Your task to perform on an android device: change the clock display to digital Image 0: 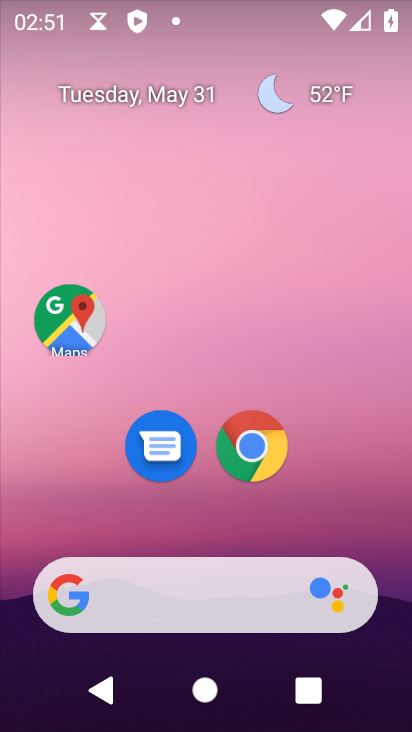
Step 0: drag from (318, 501) to (233, 123)
Your task to perform on an android device: change the clock display to digital Image 1: 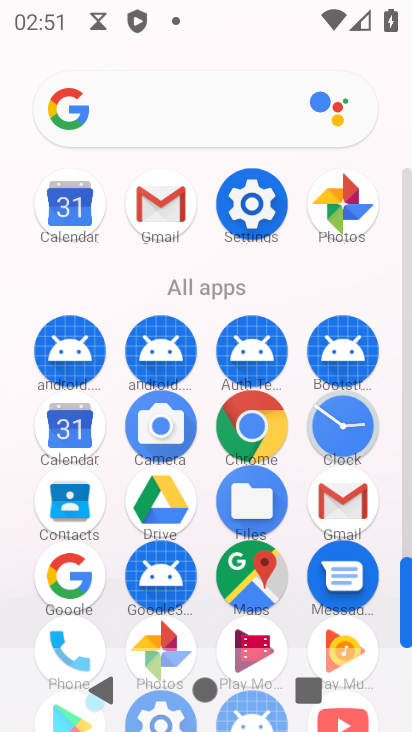
Step 1: click (343, 426)
Your task to perform on an android device: change the clock display to digital Image 2: 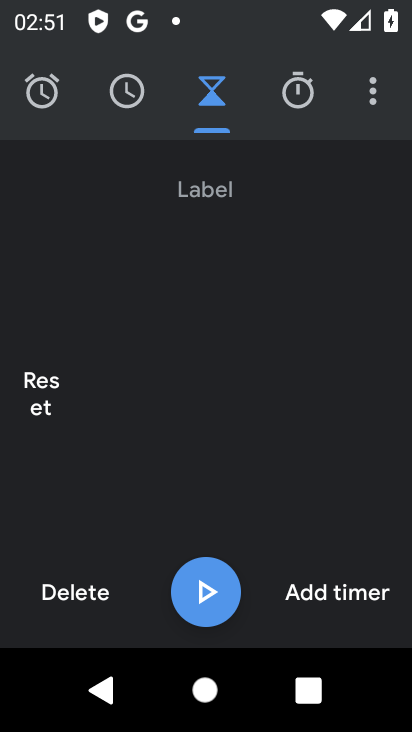
Step 2: click (373, 95)
Your task to perform on an android device: change the clock display to digital Image 3: 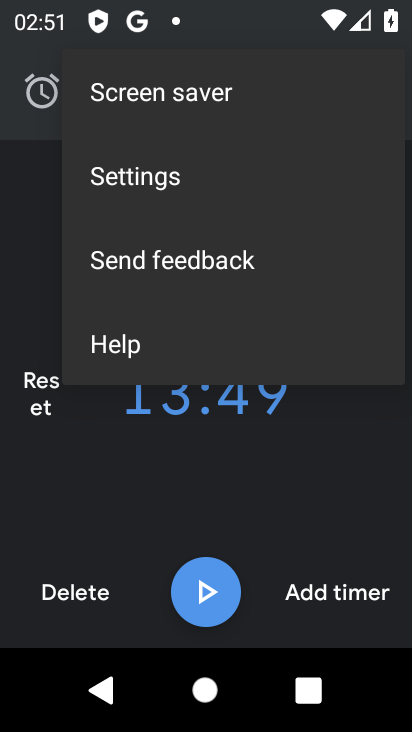
Step 3: click (169, 179)
Your task to perform on an android device: change the clock display to digital Image 4: 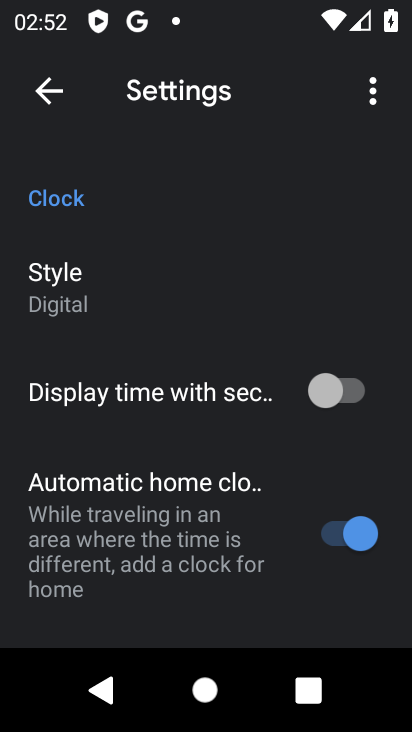
Step 4: click (93, 294)
Your task to perform on an android device: change the clock display to digital Image 5: 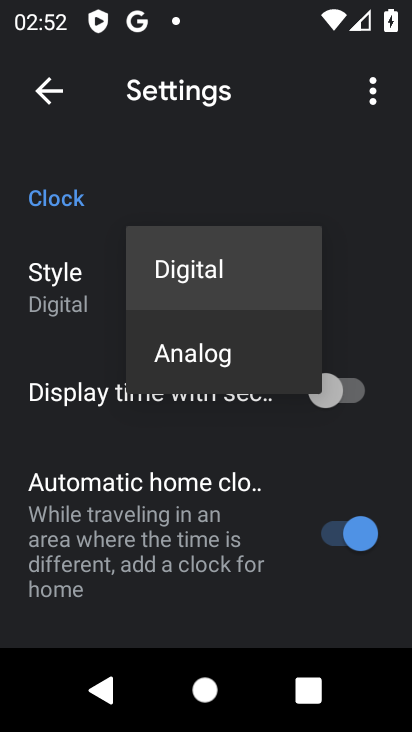
Step 5: click (197, 264)
Your task to perform on an android device: change the clock display to digital Image 6: 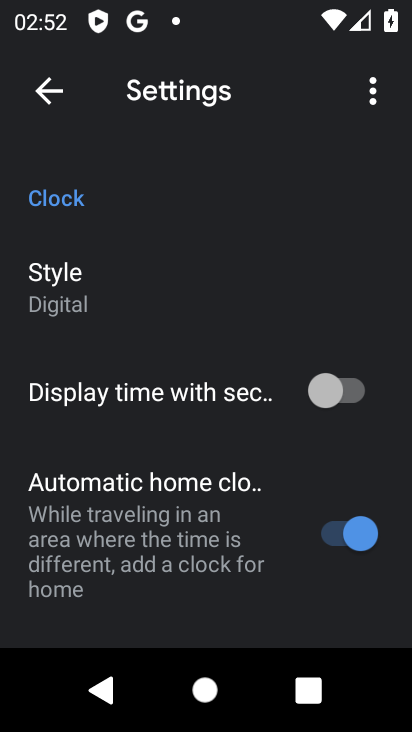
Step 6: task complete